Your task to perform on an android device: change the clock display to analog Image 0: 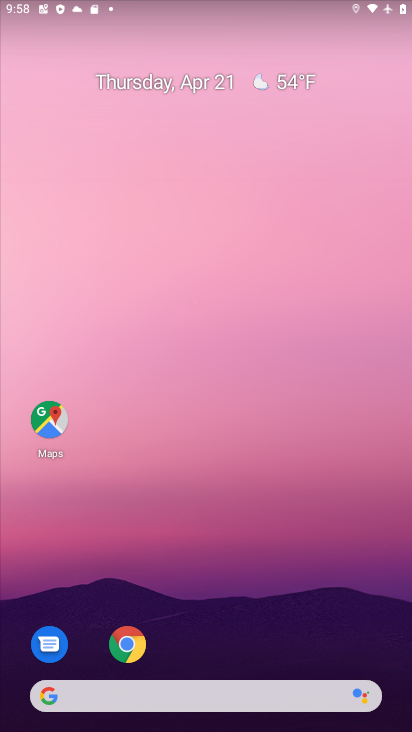
Step 0: drag from (189, 578) to (118, 94)
Your task to perform on an android device: change the clock display to analog Image 1: 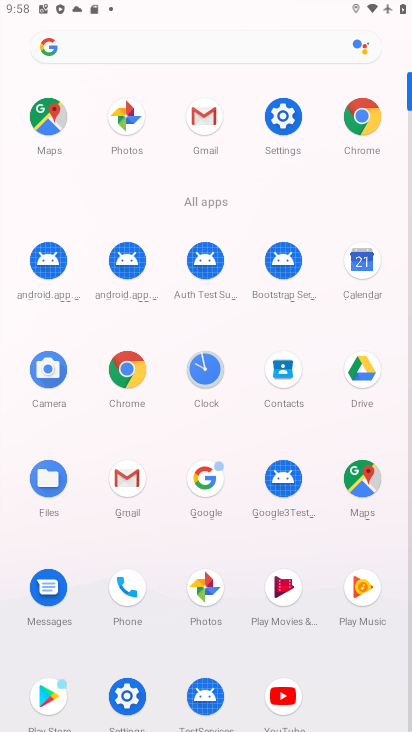
Step 1: click (200, 357)
Your task to perform on an android device: change the clock display to analog Image 2: 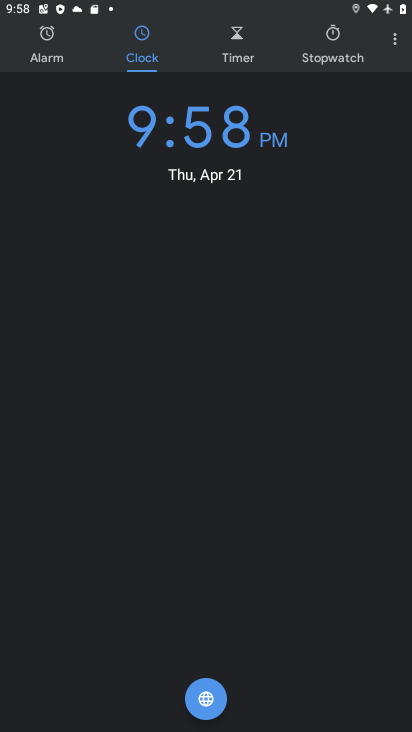
Step 2: click (398, 44)
Your task to perform on an android device: change the clock display to analog Image 3: 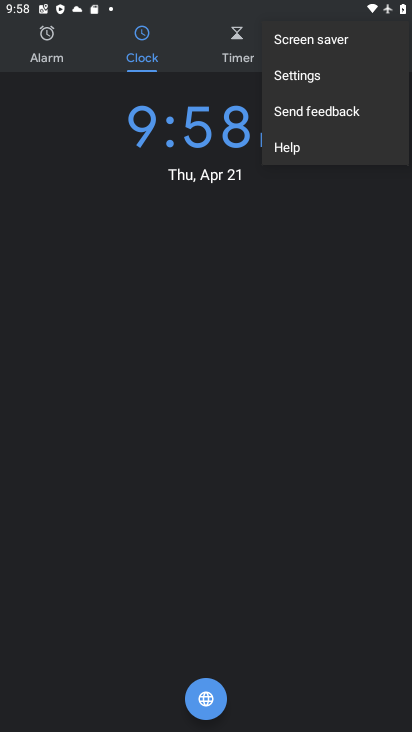
Step 3: click (288, 79)
Your task to perform on an android device: change the clock display to analog Image 4: 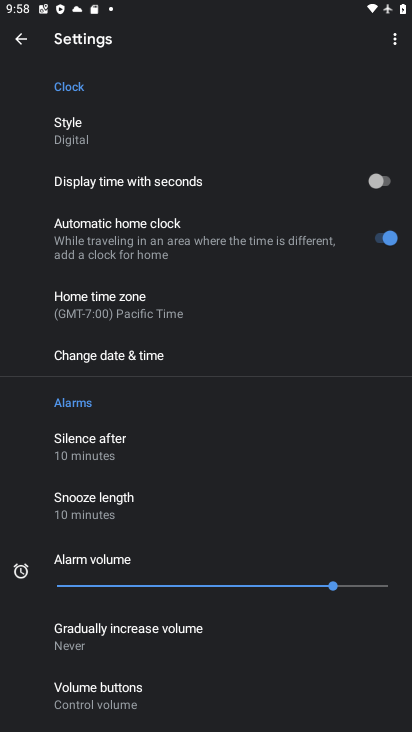
Step 4: click (71, 142)
Your task to perform on an android device: change the clock display to analog Image 5: 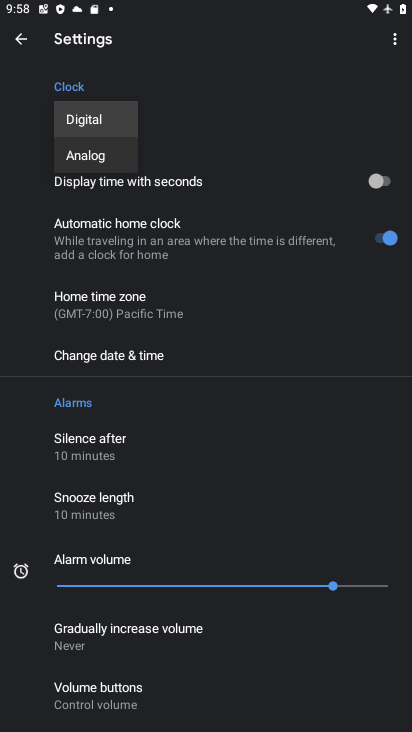
Step 5: click (90, 165)
Your task to perform on an android device: change the clock display to analog Image 6: 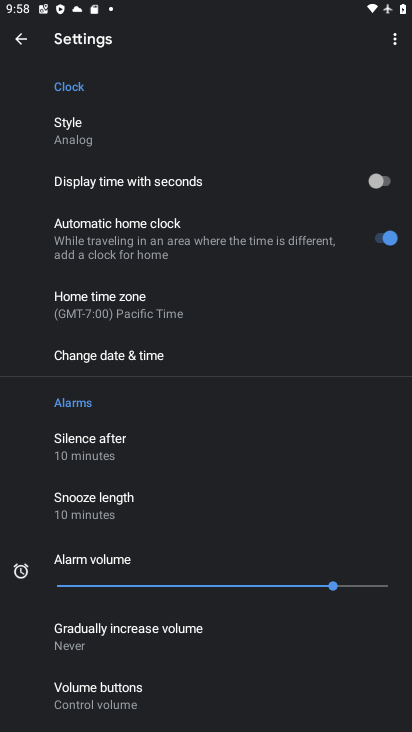
Step 6: task complete